Your task to perform on an android device: turn on bluetooth scan Image 0: 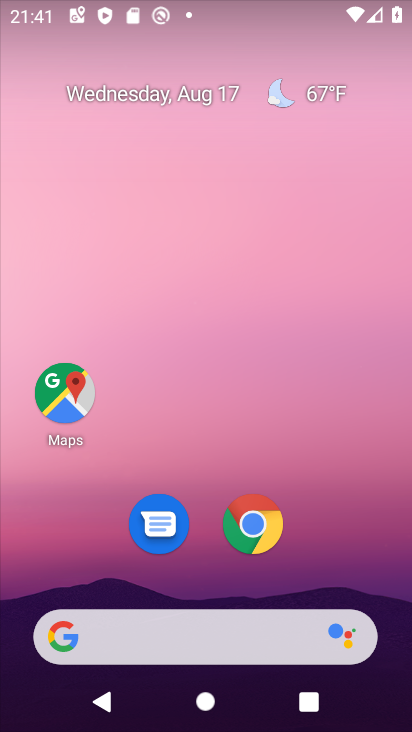
Step 0: drag from (342, 514) to (344, 0)
Your task to perform on an android device: turn on bluetooth scan Image 1: 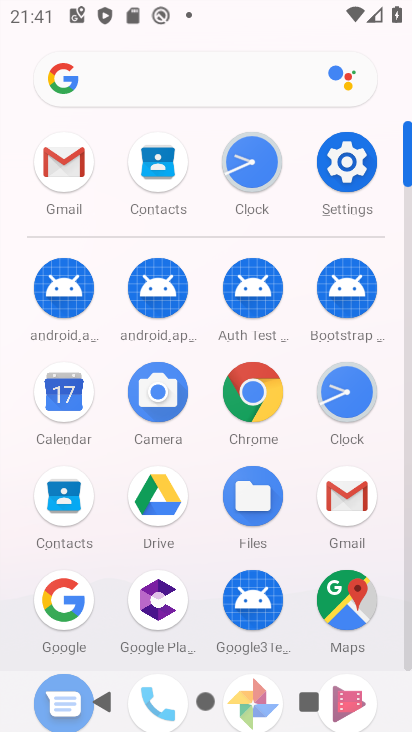
Step 1: click (339, 152)
Your task to perform on an android device: turn on bluetooth scan Image 2: 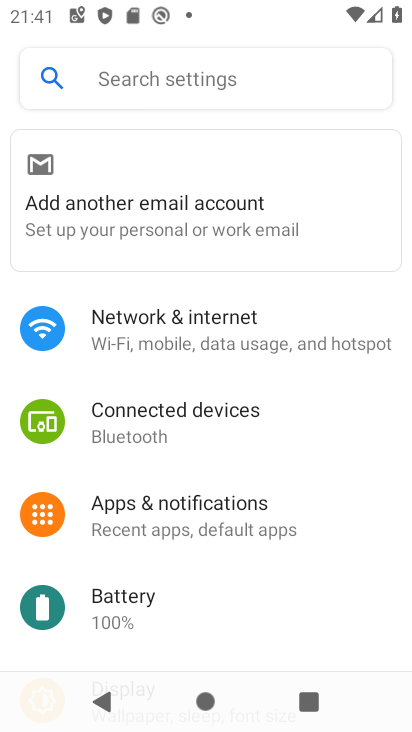
Step 2: drag from (259, 423) to (286, 8)
Your task to perform on an android device: turn on bluetooth scan Image 3: 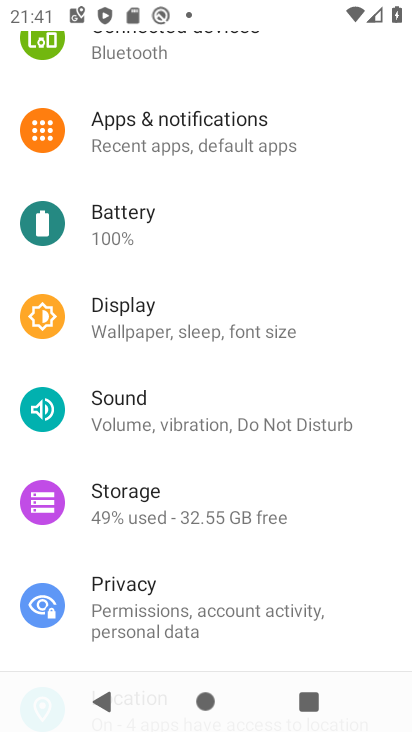
Step 3: drag from (224, 501) to (253, 64)
Your task to perform on an android device: turn on bluetooth scan Image 4: 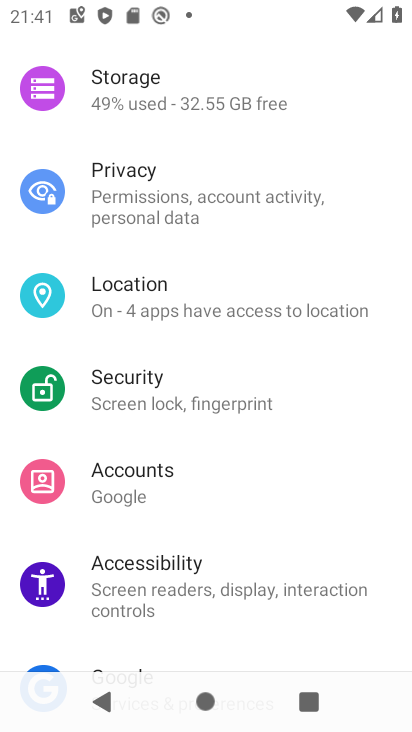
Step 4: click (229, 296)
Your task to perform on an android device: turn on bluetooth scan Image 5: 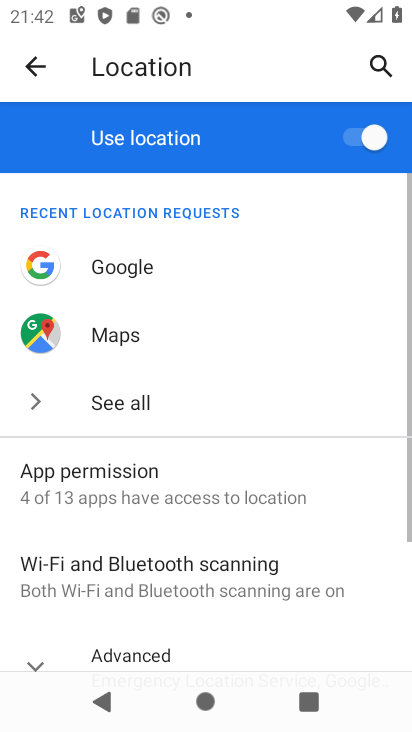
Step 5: click (238, 576)
Your task to perform on an android device: turn on bluetooth scan Image 6: 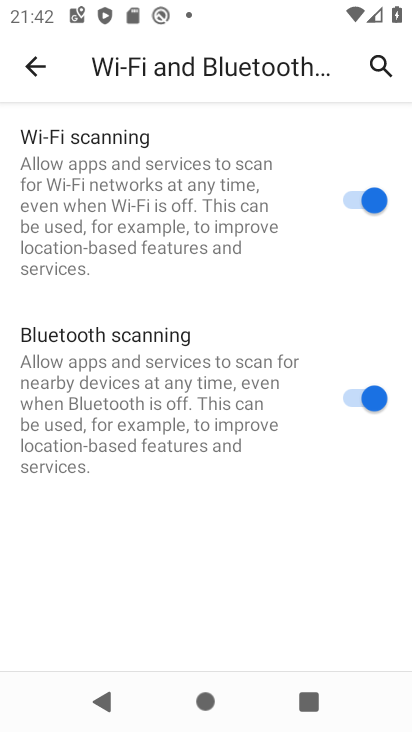
Step 6: task complete